Your task to perform on an android device: Open Google Maps and go to "Timeline" Image 0: 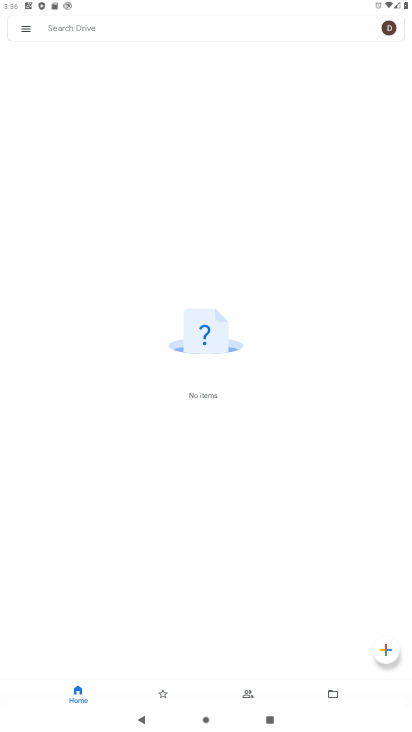
Step 0: press home button
Your task to perform on an android device: Open Google Maps and go to "Timeline" Image 1: 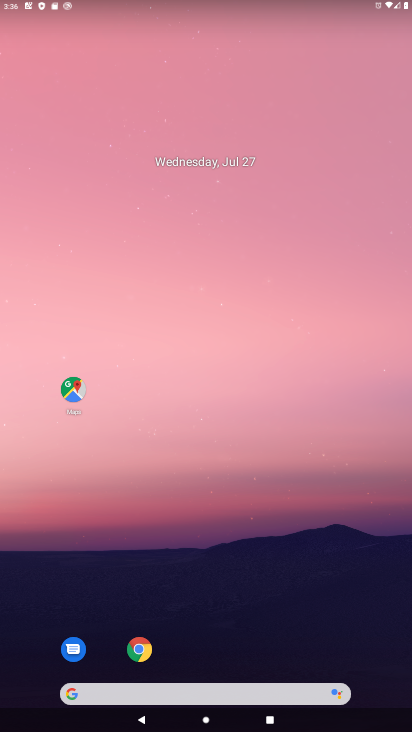
Step 1: click (73, 390)
Your task to perform on an android device: Open Google Maps and go to "Timeline" Image 2: 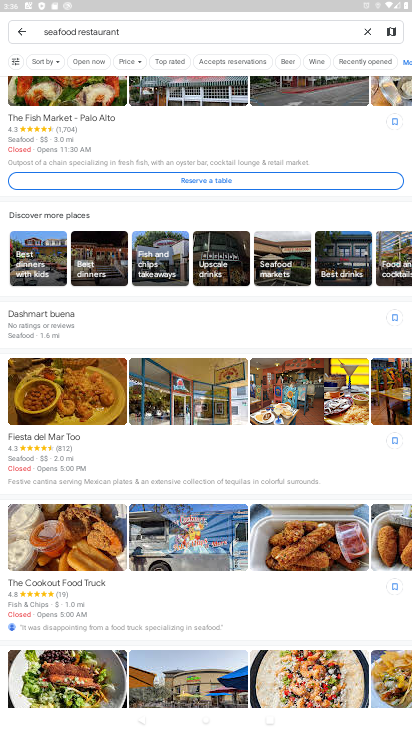
Step 2: click (365, 31)
Your task to perform on an android device: Open Google Maps and go to "Timeline" Image 3: 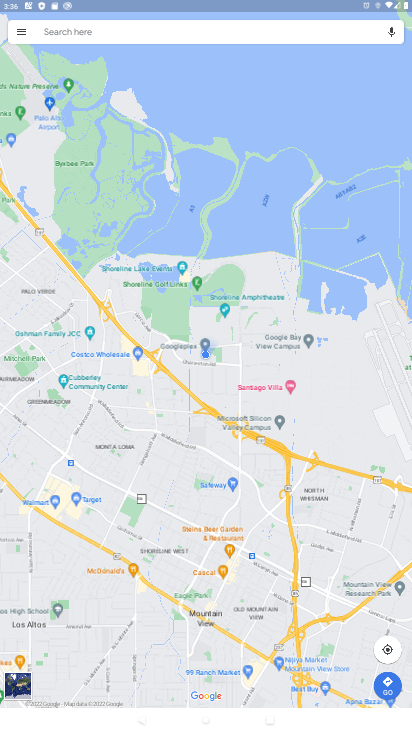
Step 3: click (24, 32)
Your task to perform on an android device: Open Google Maps and go to "Timeline" Image 4: 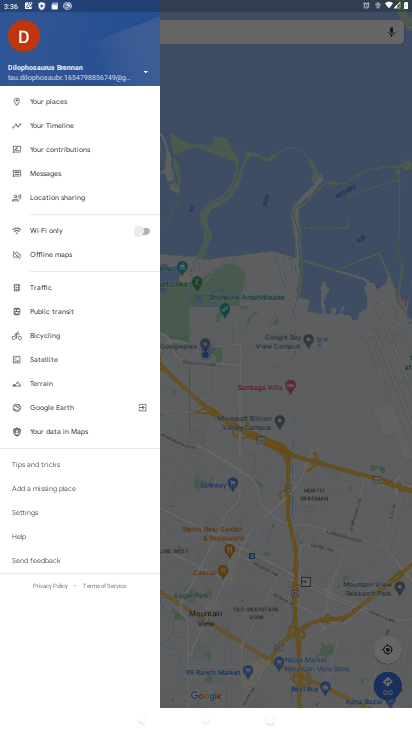
Step 4: click (47, 123)
Your task to perform on an android device: Open Google Maps and go to "Timeline" Image 5: 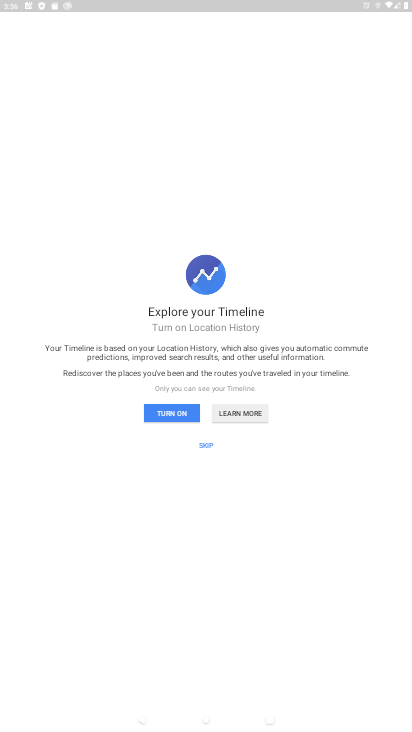
Step 5: click (206, 444)
Your task to perform on an android device: Open Google Maps and go to "Timeline" Image 6: 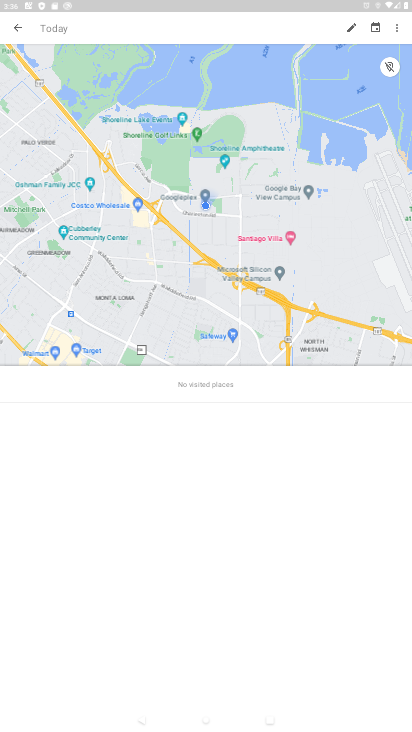
Step 6: task complete